Your task to perform on an android device: change notifications settings Image 0: 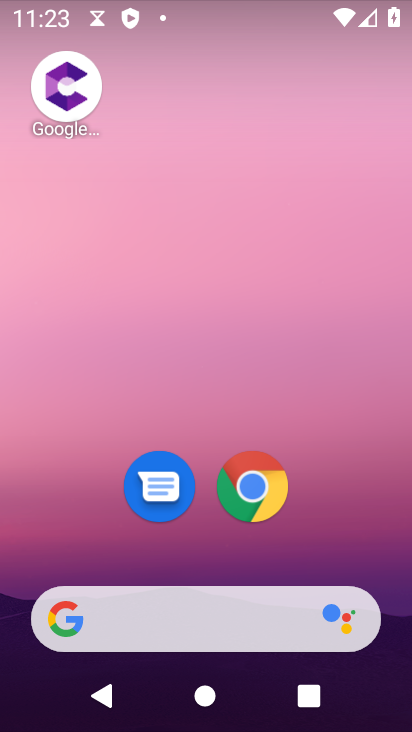
Step 0: drag from (262, 567) to (324, 188)
Your task to perform on an android device: change notifications settings Image 1: 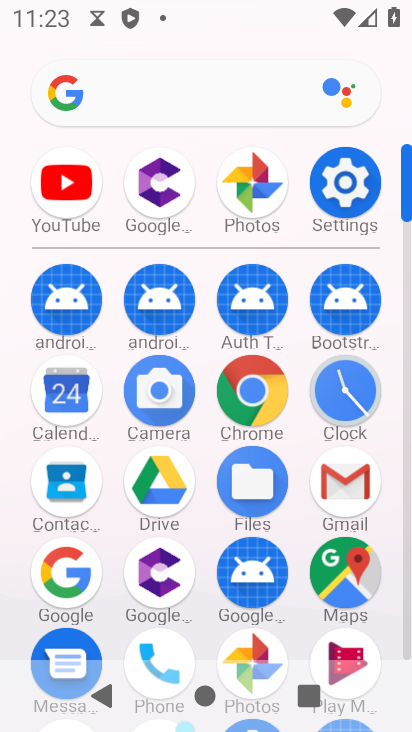
Step 1: click (338, 193)
Your task to perform on an android device: change notifications settings Image 2: 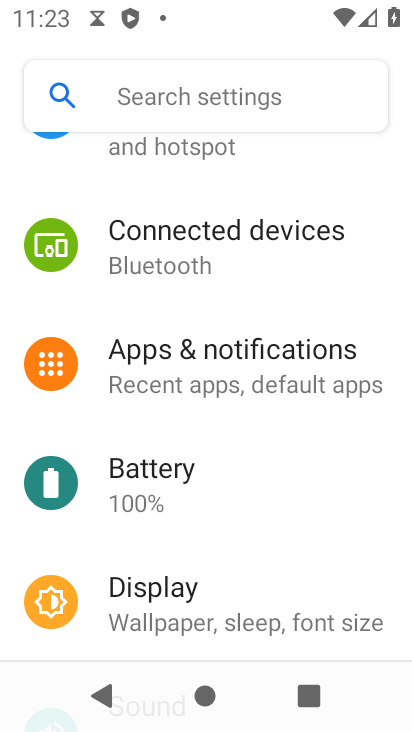
Step 2: click (247, 386)
Your task to perform on an android device: change notifications settings Image 3: 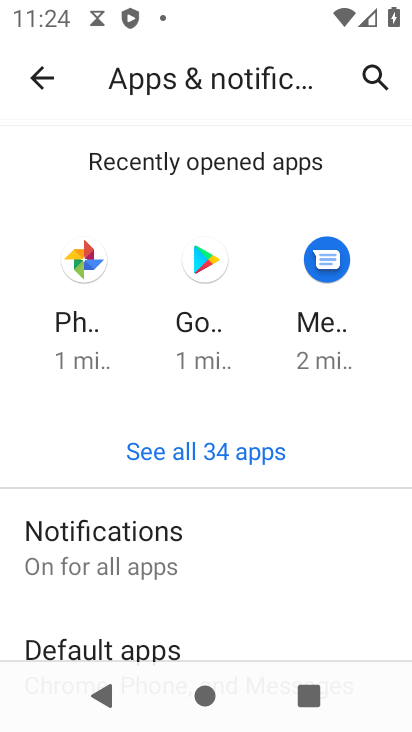
Step 3: click (146, 547)
Your task to perform on an android device: change notifications settings Image 4: 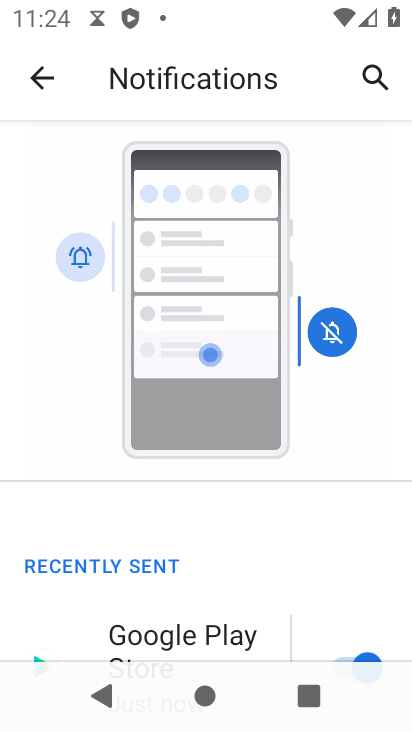
Step 4: drag from (266, 575) to (320, 304)
Your task to perform on an android device: change notifications settings Image 5: 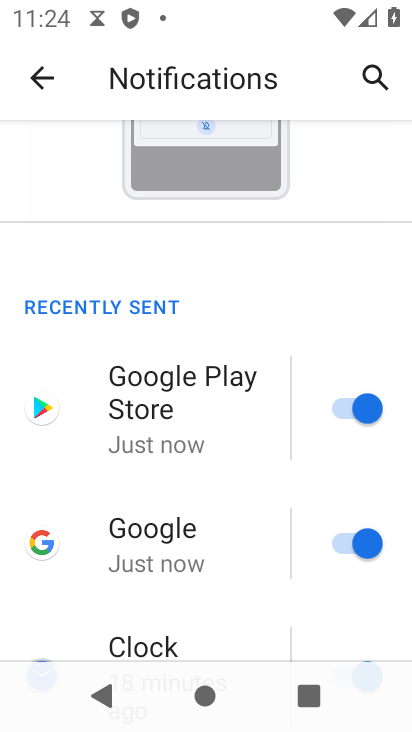
Step 5: drag from (228, 482) to (305, 276)
Your task to perform on an android device: change notifications settings Image 6: 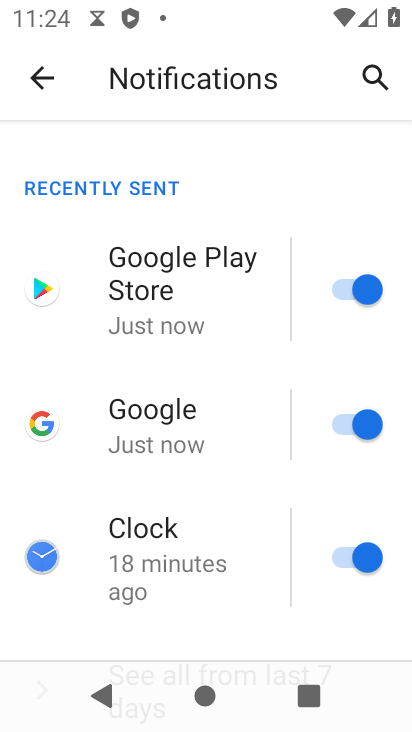
Step 6: click (344, 433)
Your task to perform on an android device: change notifications settings Image 7: 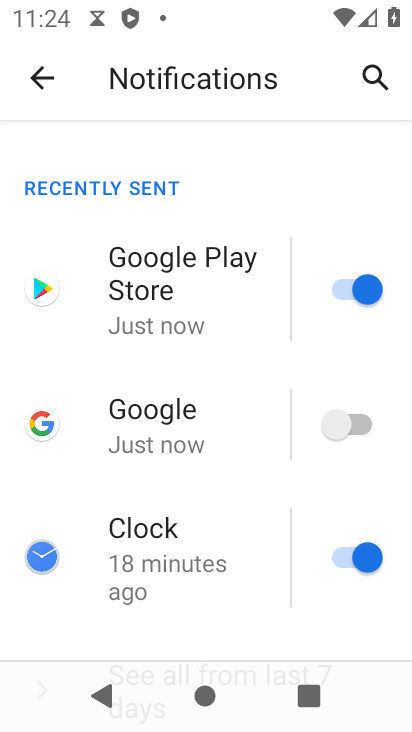
Step 7: task complete